Your task to perform on an android device: add a contact Image 0: 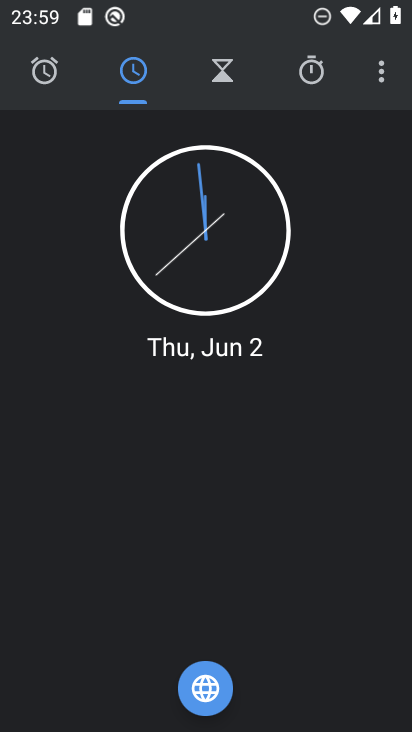
Step 0: press home button
Your task to perform on an android device: add a contact Image 1: 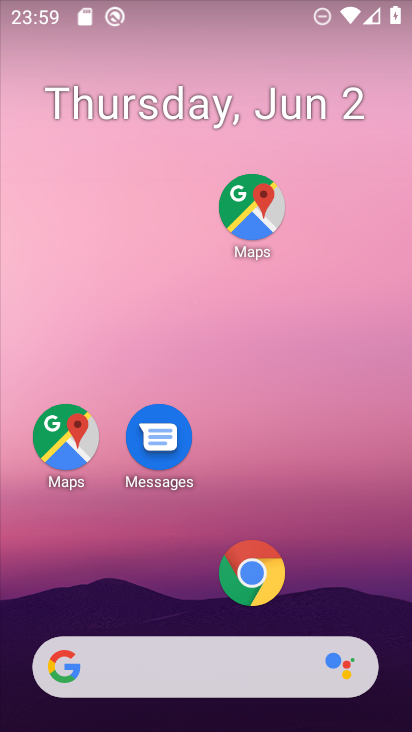
Step 1: drag from (325, 569) to (357, 6)
Your task to perform on an android device: add a contact Image 2: 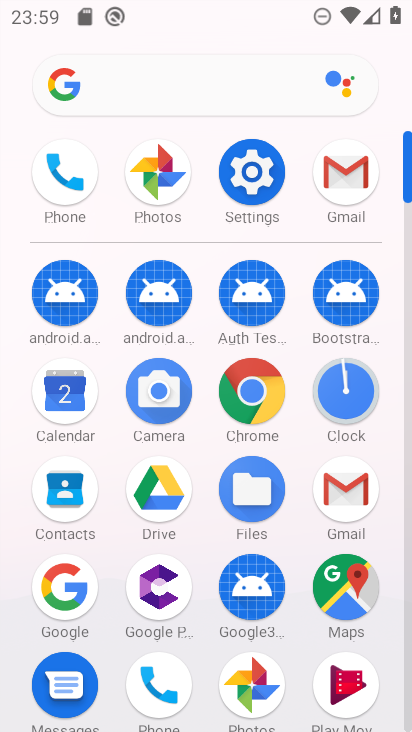
Step 2: click (65, 507)
Your task to perform on an android device: add a contact Image 3: 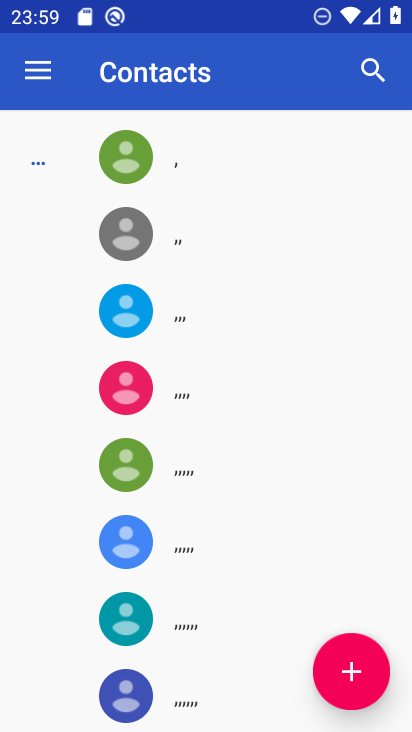
Step 3: click (348, 671)
Your task to perform on an android device: add a contact Image 4: 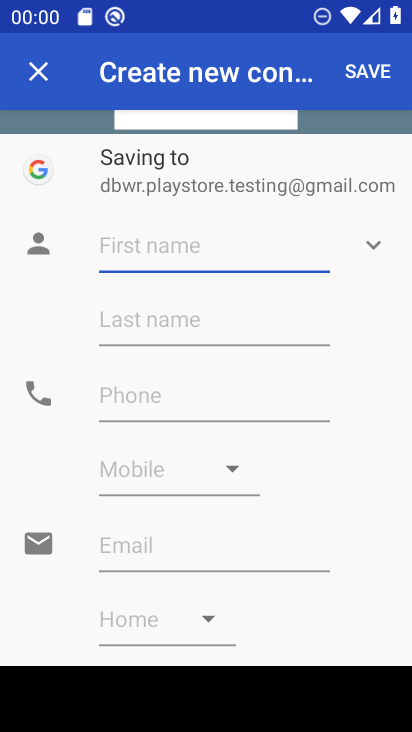
Step 4: click (158, 231)
Your task to perform on an android device: add a contact Image 5: 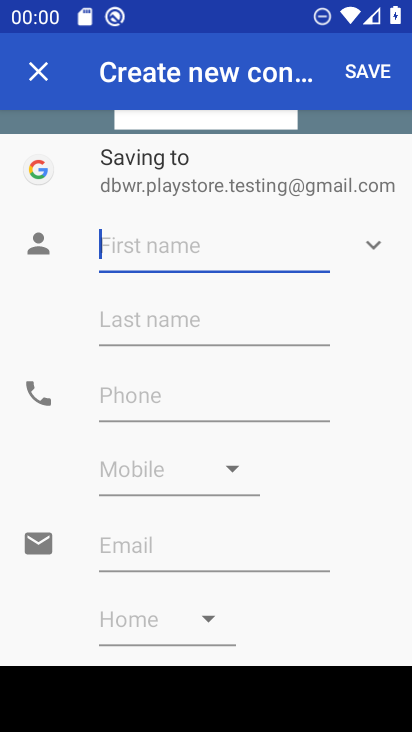
Step 5: type "jxjsjhasg"
Your task to perform on an android device: add a contact Image 6: 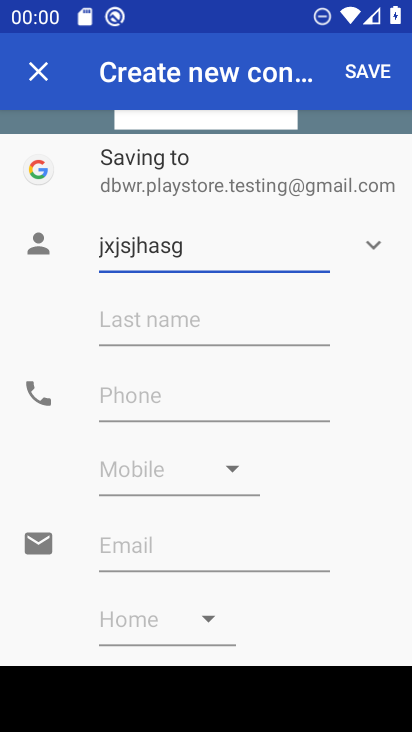
Step 6: click (130, 399)
Your task to perform on an android device: add a contact Image 7: 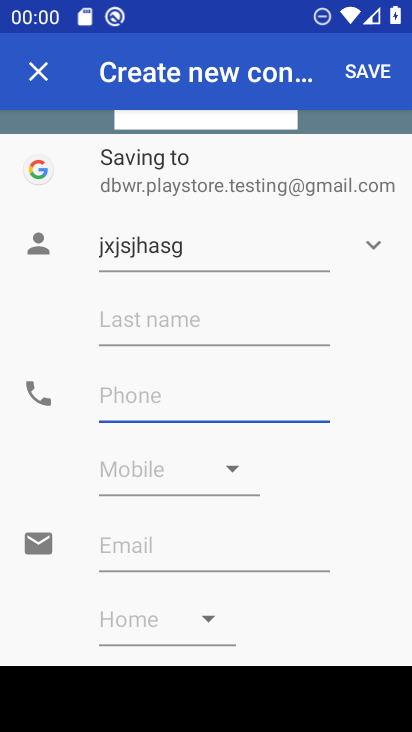
Step 7: type "5467687998"
Your task to perform on an android device: add a contact Image 8: 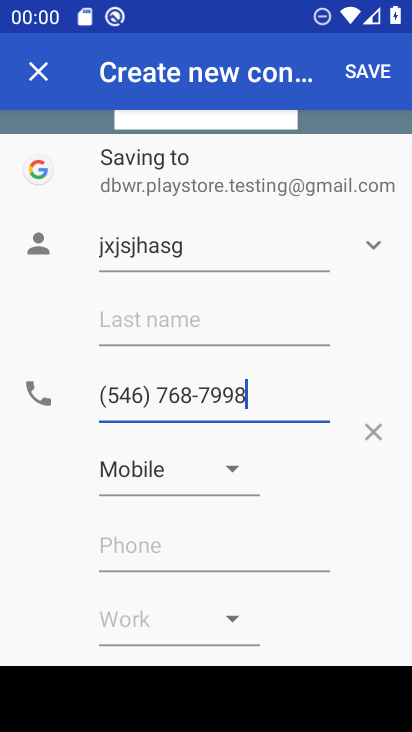
Step 8: click (350, 78)
Your task to perform on an android device: add a contact Image 9: 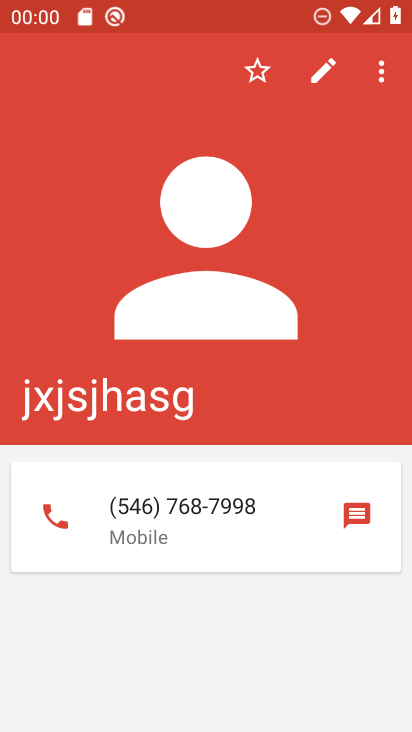
Step 9: task complete